Your task to perform on an android device: change notification settings in the gmail app Image 0: 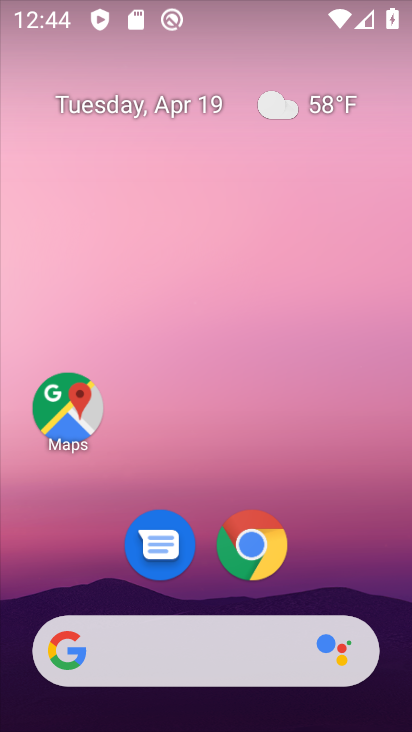
Step 0: drag from (205, 536) to (275, 39)
Your task to perform on an android device: change notification settings in the gmail app Image 1: 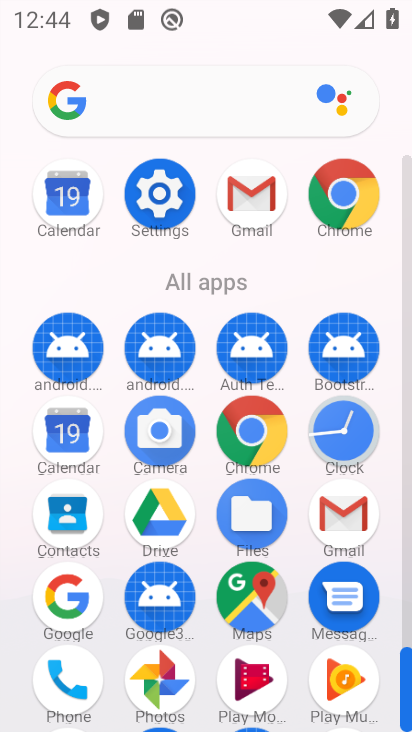
Step 1: click (266, 178)
Your task to perform on an android device: change notification settings in the gmail app Image 2: 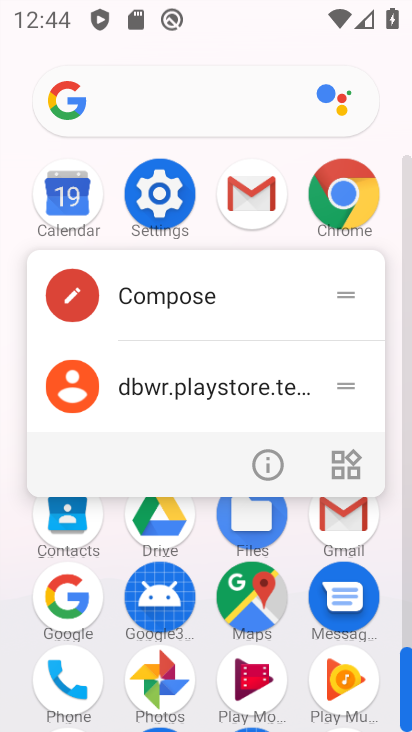
Step 2: click (270, 458)
Your task to perform on an android device: change notification settings in the gmail app Image 3: 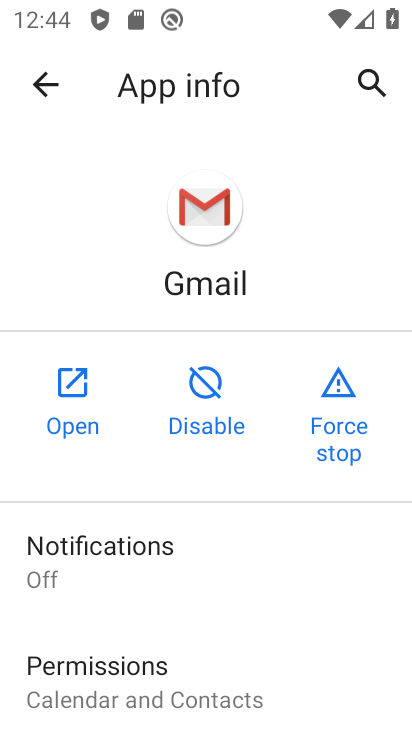
Step 3: click (89, 551)
Your task to perform on an android device: change notification settings in the gmail app Image 4: 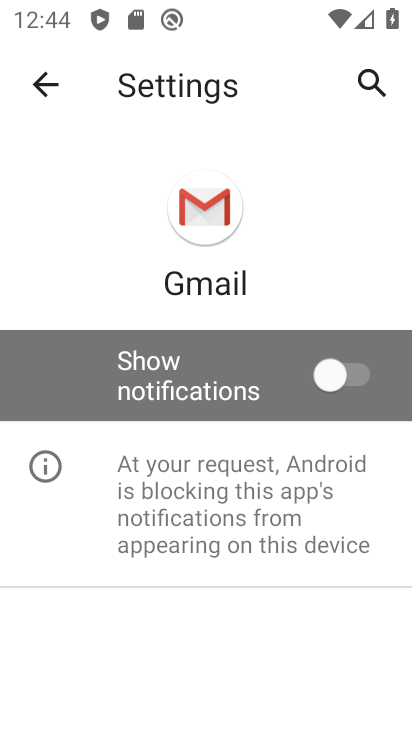
Step 4: click (324, 380)
Your task to perform on an android device: change notification settings in the gmail app Image 5: 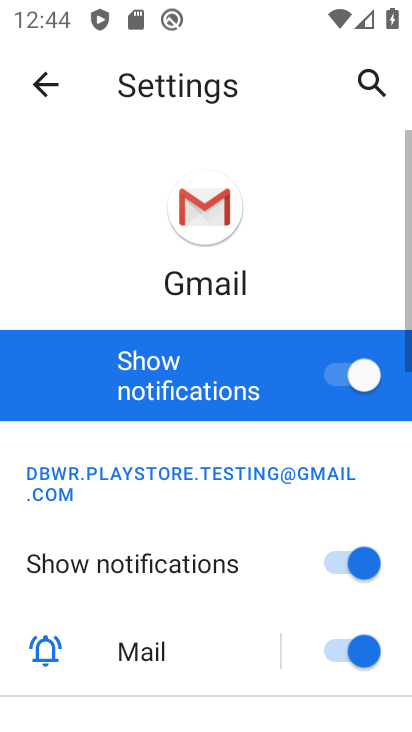
Step 5: drag from (288, 577) to (288, 160)
Your task to perform on an android device: change notification settings in the gmail app Image 6: 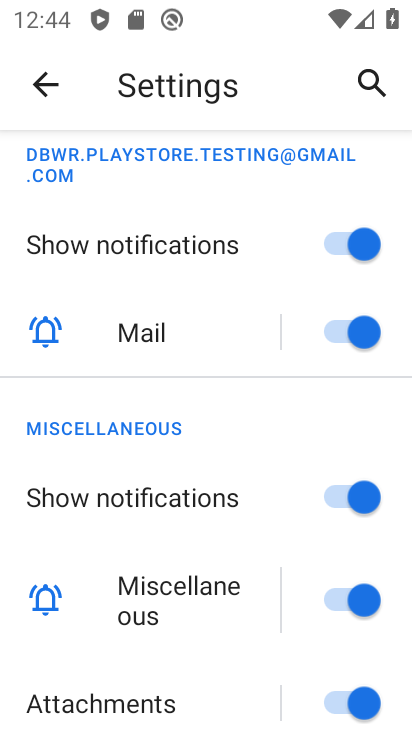
Step 6: click (354, 322)
Your task to perform on an android device: change notification settings in the gmail app Image 7: 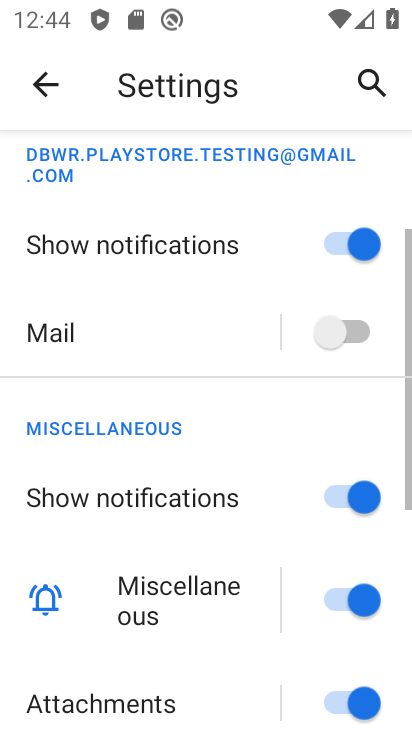
Step 7: task complete